Your task to perform on an android device: Go to wifi settings Image 0: 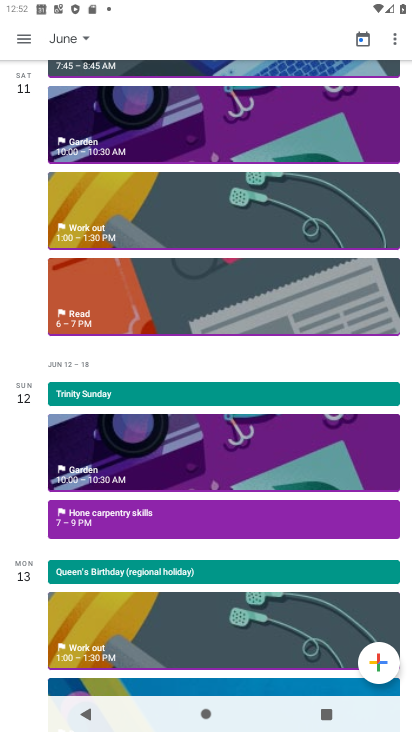
Step 0: press home button
Your task to perform on an android device: Go to wifi settings Image 1: 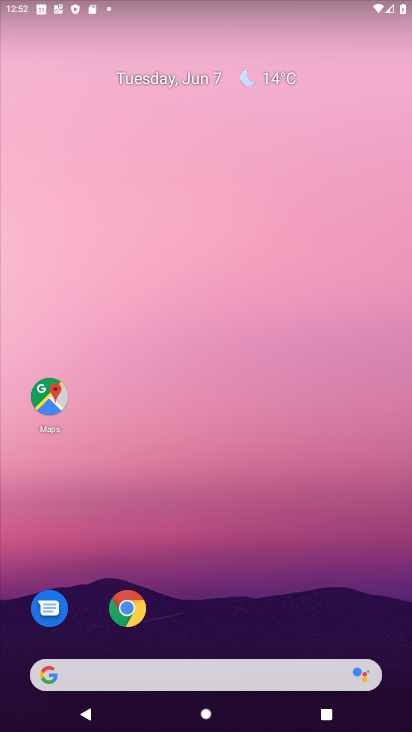
Step 1: drag from (262, 545) to (272, 88)
Your task to perform on an android device: Go to wifi settings Image 2: 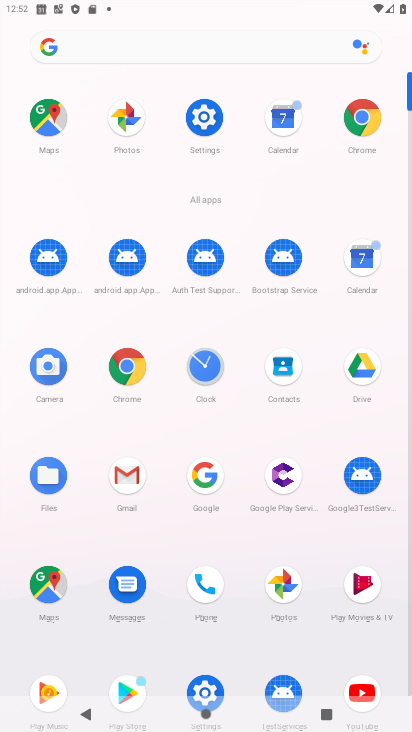
Step 2: click (208, 116)
Your task to perform on an android device: Go to wifi settings Image 3: 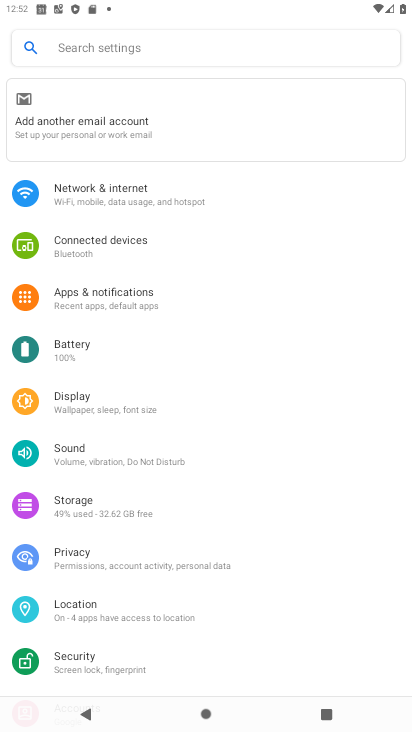
Step 3: click (131, 192)
Your task to perform on an android device: Go to wifi settings Image 4: 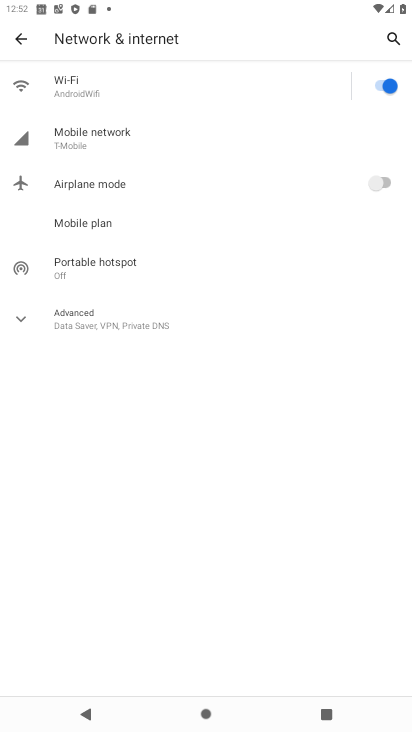
Step 4: click (101, 88)
Your task to perform on an android device: Go to wifi settings Image 5: 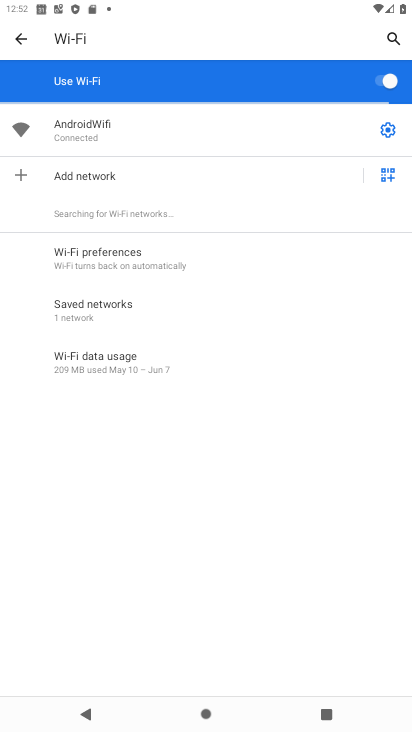
Step 5: task complete